Your task to perform on an android device: Open network settings Image 0: 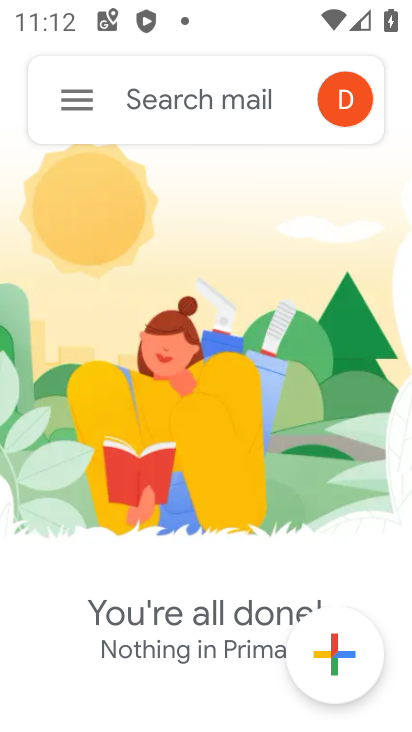
Step 0: press home button
Your task to perform on an android device: Open network settings Image 1: 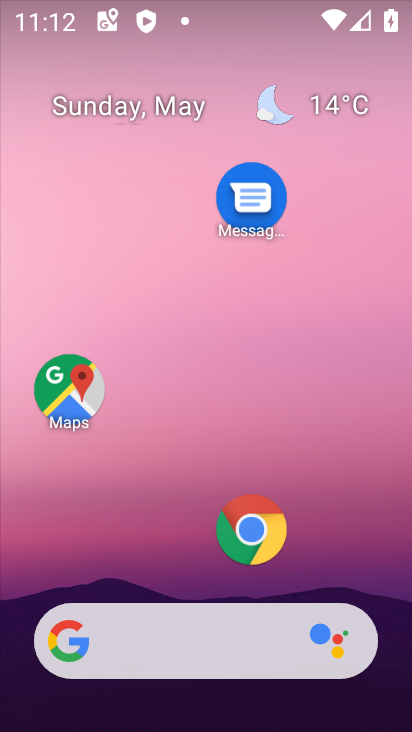
Step 1: drag from (146, 577) to (128, 10)
Your task to perform on an android device: Open network settings Image 2: 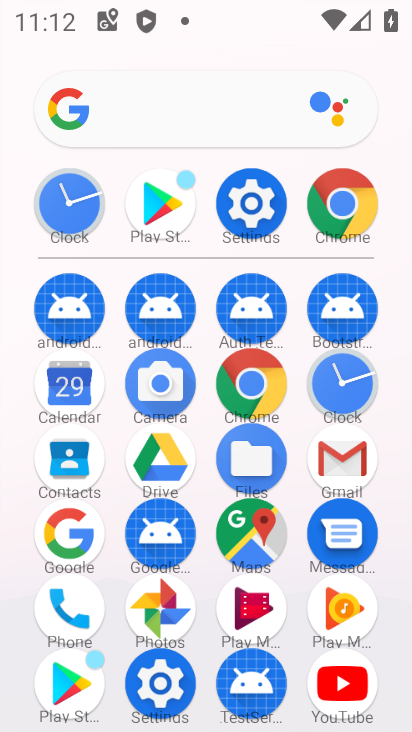
Step 2: click (253, 216)
Your task to perform on an android device: Open network settings Image 3: 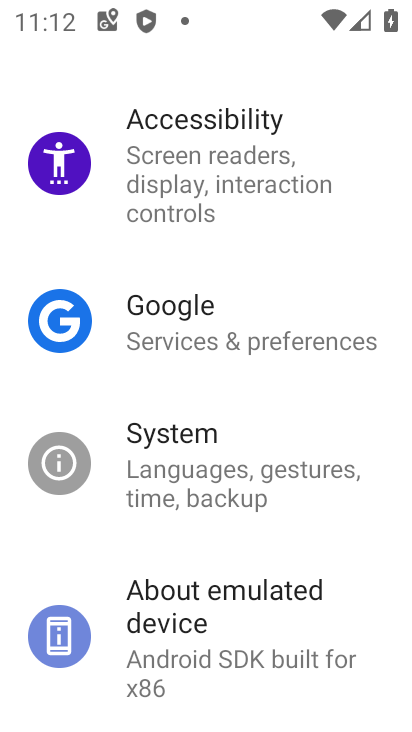
Step 3: drag from (246, 202) to (342, 723)
Your task to perform on an android device: Open network settings Image 4: 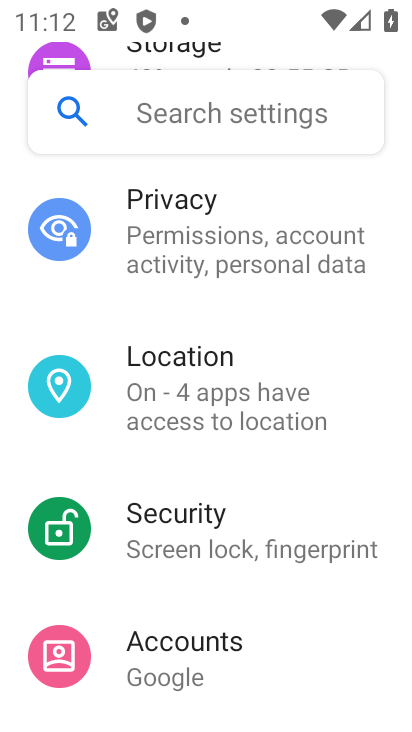
Step 4: drag from (182, 247) to (220, 715)
Your task to perform on an android device: Open network settings Image 5: 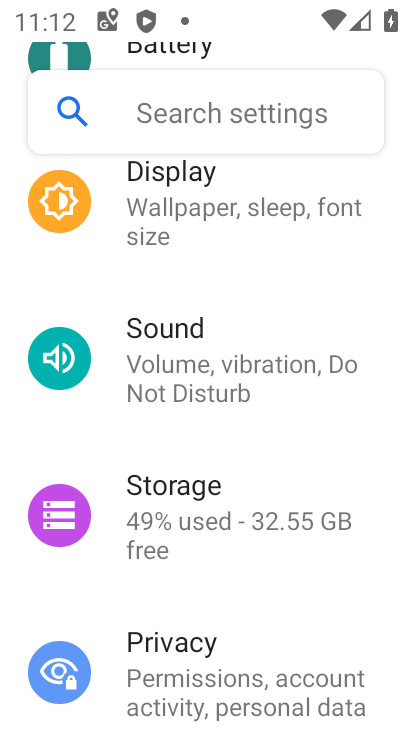
Step 5: drag from (165, 186) to (288, 690)
Your task to perform on an android device: Open network settings Image 6: 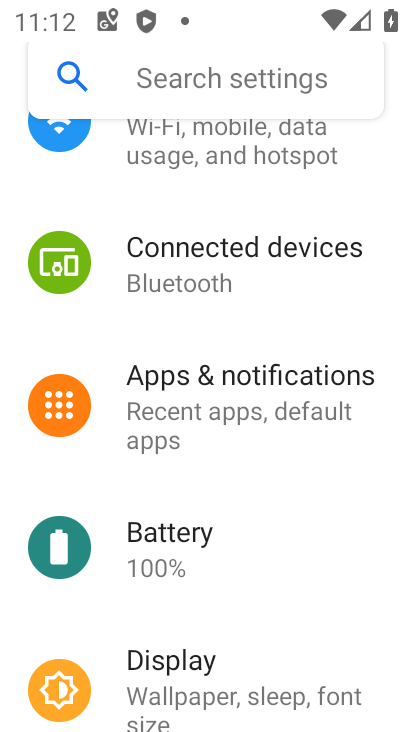
Step 6: drag from (252, 287) to (298, 731)
Your task to perform on an android device: Open network settings Image 7: 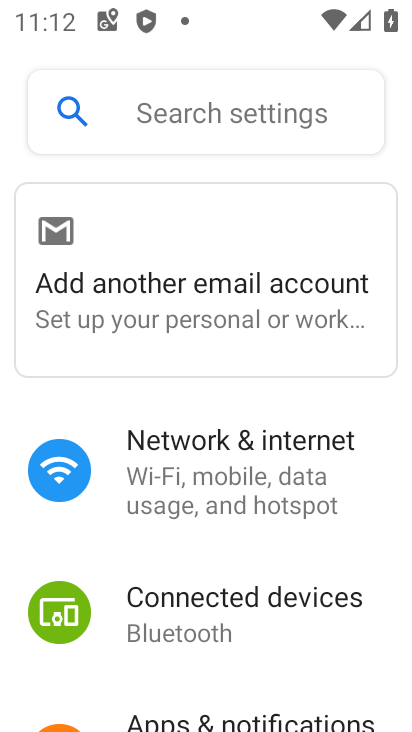
Step 7: click (253, 447)
Your task to perform on an android device: Open network settings Image 8: 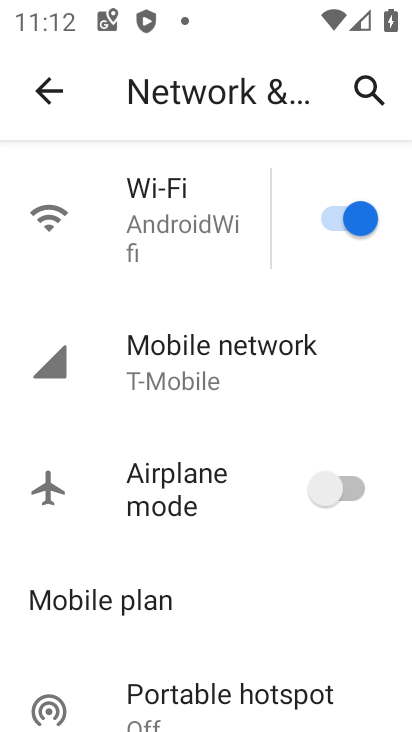
Step 8: task complete